Your task to perform on an android device: Go to accessibility settings Image 0: 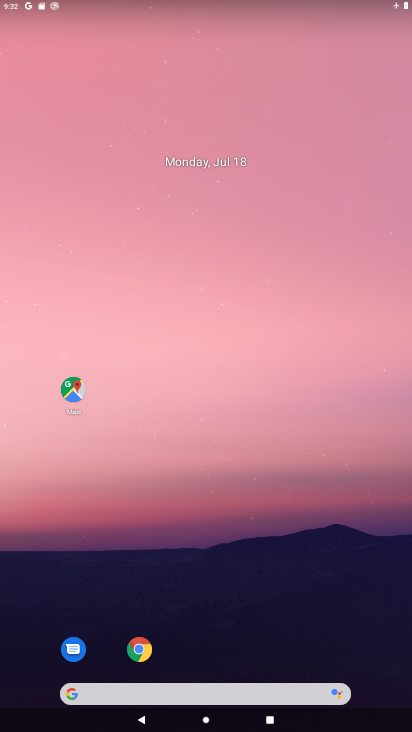
Step 0: drag from (247, 674) to (288, 436)
Your task to perform on an android device: Go to accessibility settings Image 1: 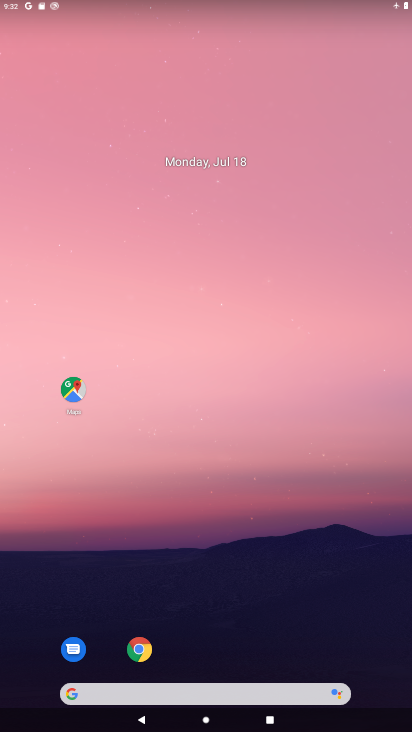
Step 1: drag from (210, 683) to (280, 281)
Your task to perform on an android device: Go to accessibility settings Image 2: 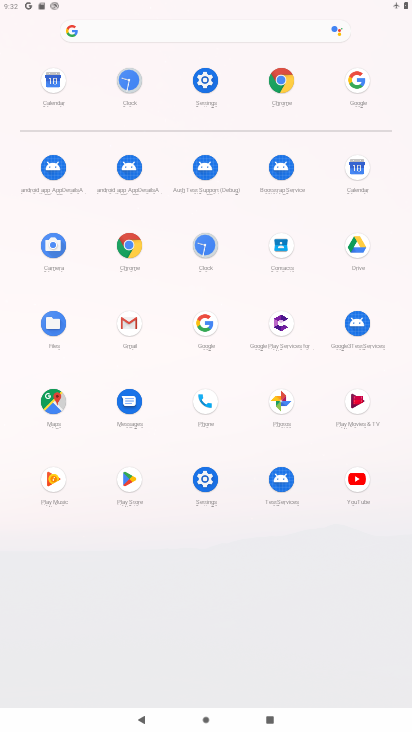
Step 2: click (194, 88)
Your task to perform on an android device: Go to accessibility settings Image 3: 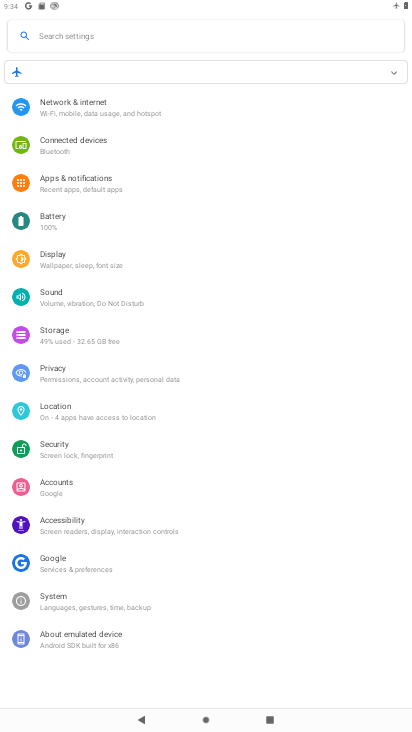
Step 3: click (110, 524)
Your task to perform on an android device: Go to accessibility settings Image 4: 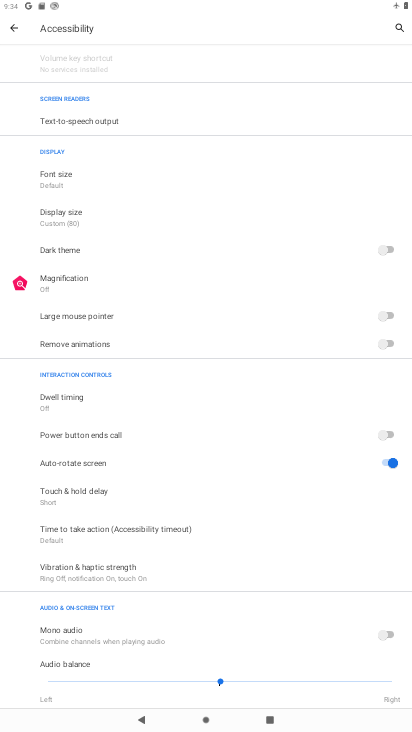
Step 4: task complete